Your task to perform on an android device: Go to ESPN.com Image 0: 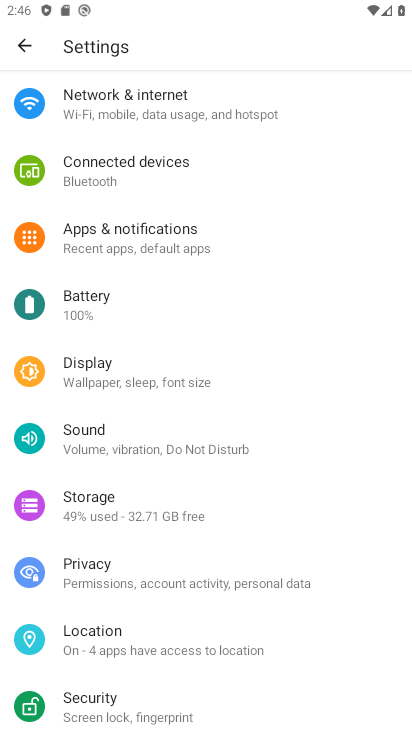
Step 0: press home button
Your task to perform on an android device: Go to ESPN.com Image 1: 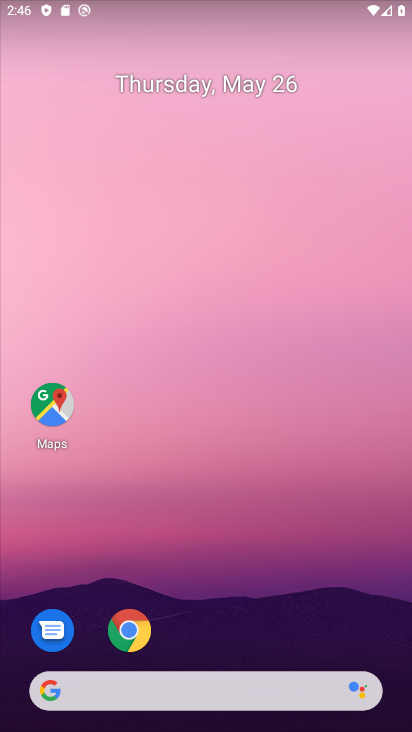
Step 1: click (129, 629)
Your task to perform on an android device: Go to ESPN.com Image 2: 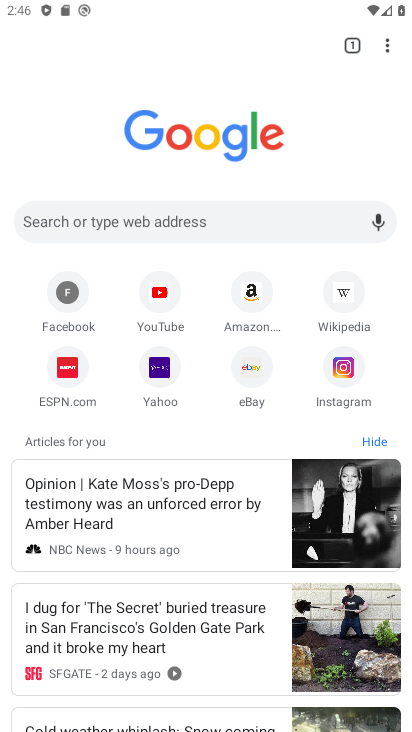
Step 2: click (226, 224)
Your task to perform on an android device: Go to ESPN.com Image 3: 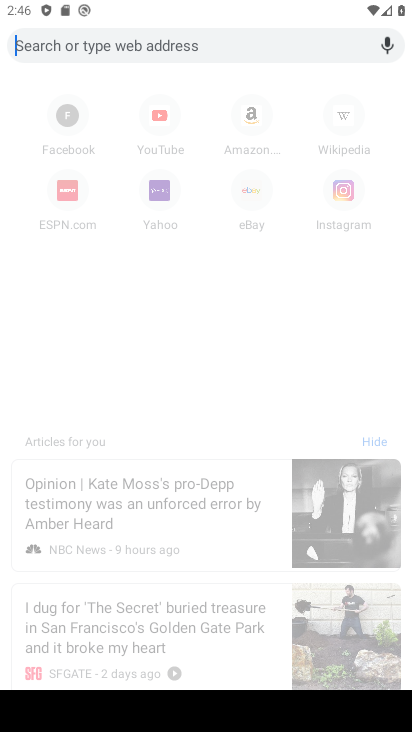
Step 3: type "ESPN.com"
Your task to perform on an android device: Go to ESPN.com Image 4: 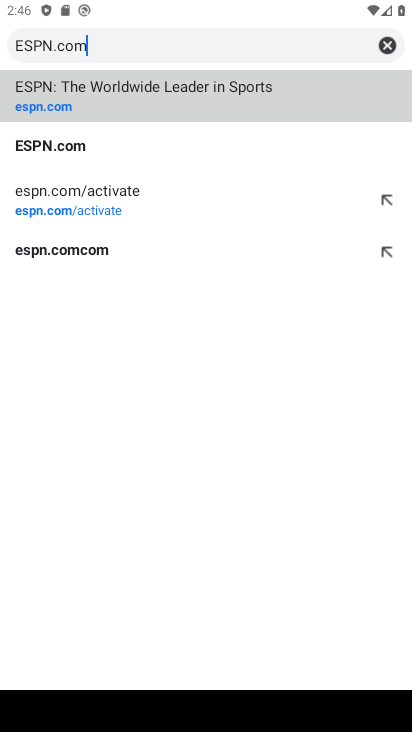
Step 4: click (65, 143)
Your task to perform on an android device: Go to ESPN.com Image 5: 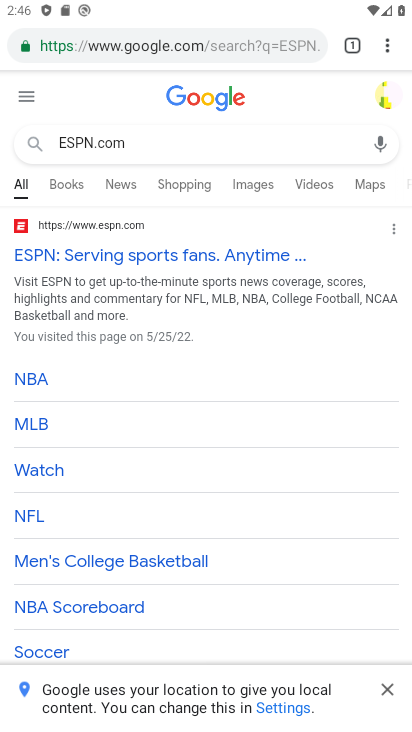
Step 5: click (89, 256)
Your task to perform on an android device: Go to ESPN.com Image 6: 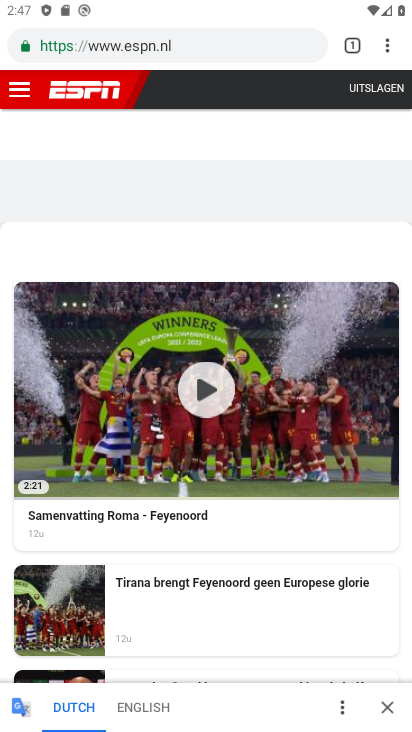
Step 6: task complete